Your task to perform on an android device: Show the shopping cart on bestbuy.com. Add panasonic triple a to the cart on bestbuy.com Image 0: 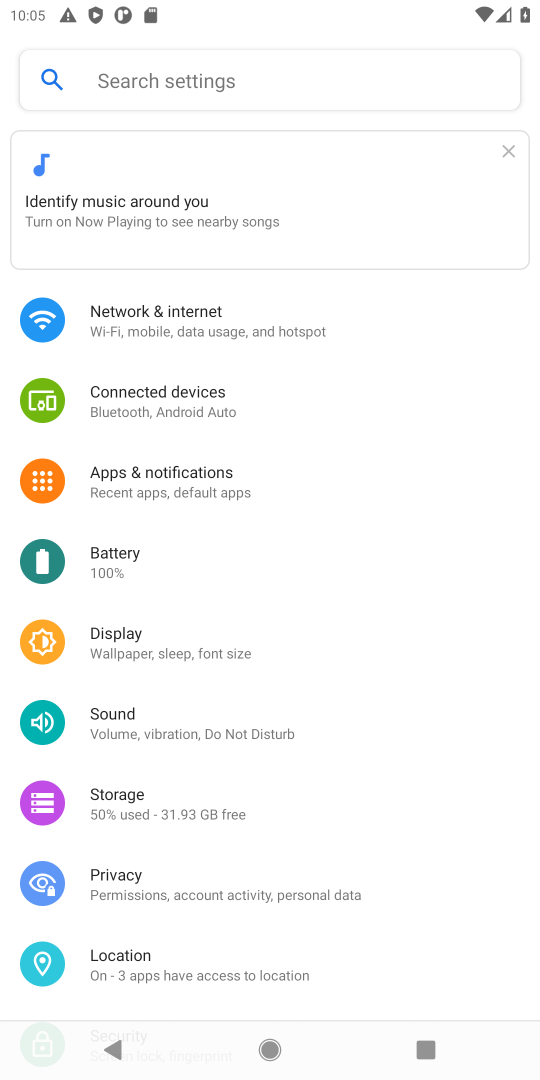
Step 0: task complete